Your task to perform on an android device: Find coffee shops on Maps Image 0: 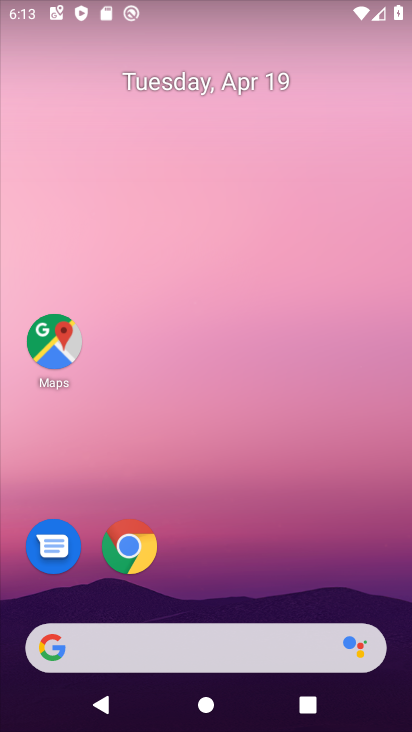
Step 0: drag from (291, 583) to (246, 31)
Your task to perform on an android device: Find coffee shops on Maps Image 1: 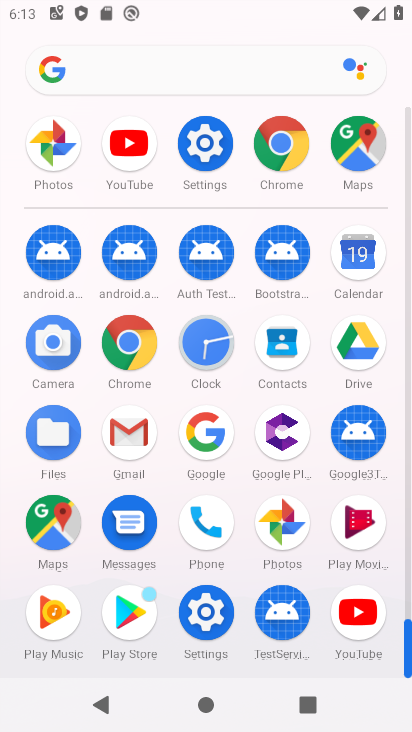
Step 1: click (352, 152)
Your task to perform on an android device: Find coffee shops on Maps Image 2: 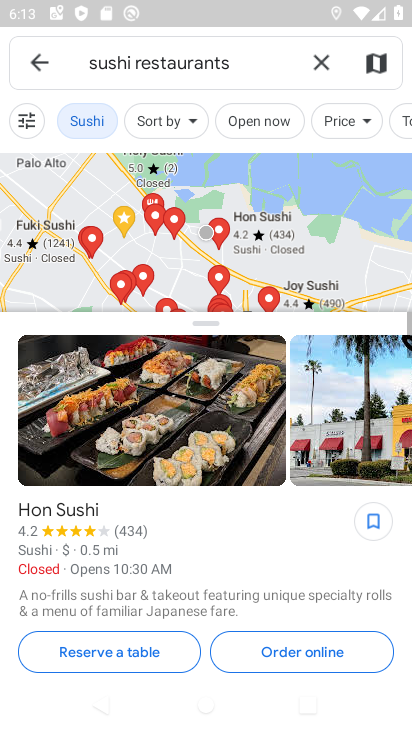
Step 2: click (282, 66)
Your task to perform on an android device: Find coffee shops on Maps Image 3: 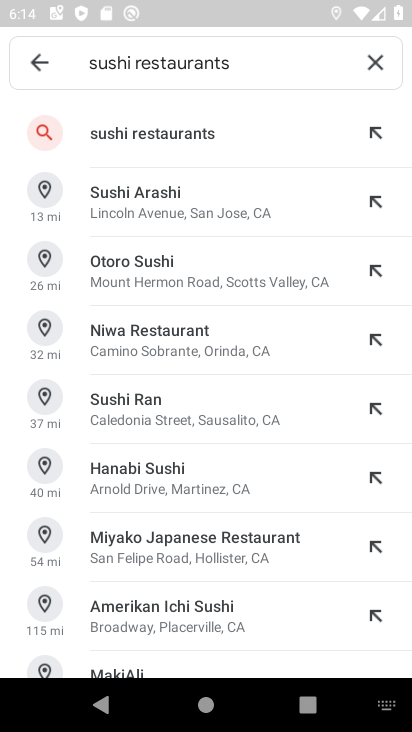
Step 3: click (377, 52)
Your task to perform on an android device: Find coffee shops on Maps Image 4: 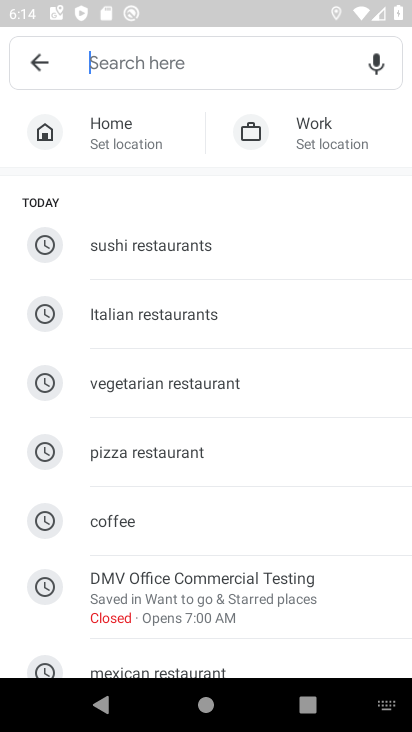
Step 4: type "coffee shops"
Your task to perform on an android device: Find coffee shops on Maps Image 5: 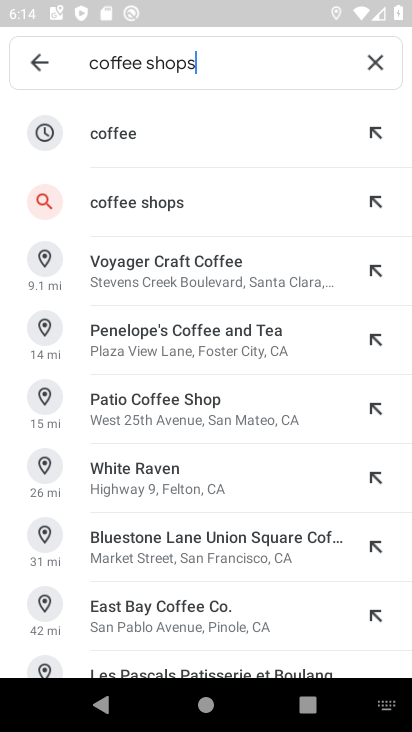
Step 5: click (150, 208)
Your task to perform on an android device: Find coffee shops on Maps Image 6: 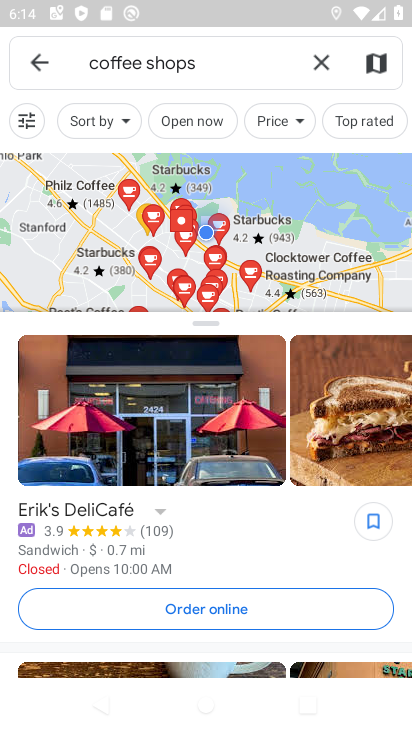
Step 6: task complete